Your task to perform on an android device: Open CNN.com Image 0: 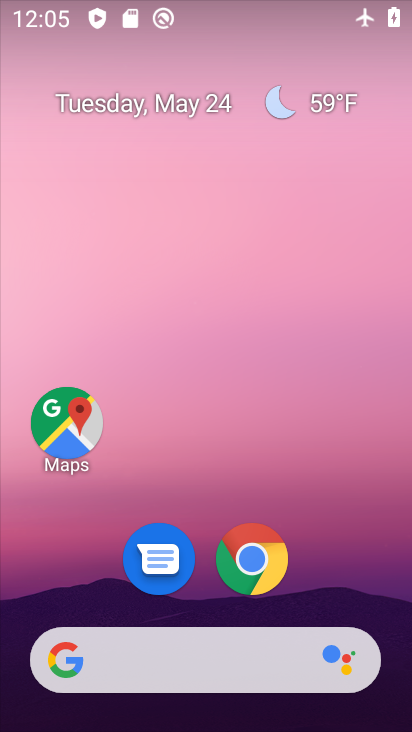
Step 0: drag from (384, 662) to (297, 14)
Your task to perform on an android device: Open CNN.com Image 1: 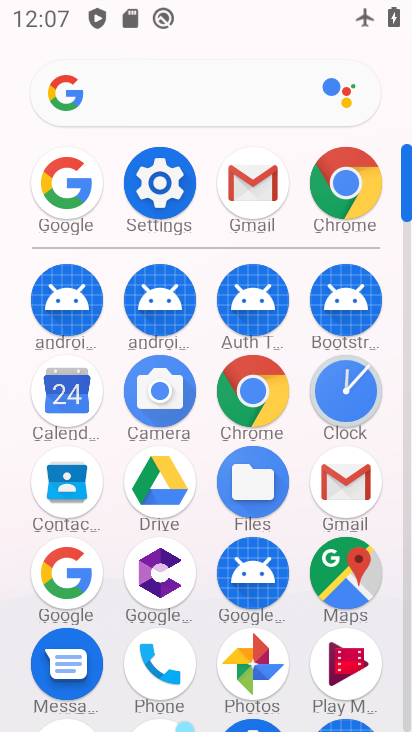
Step 1: click (76, 561)
Your task to perform on an android device: Open CNN.com Image 2: 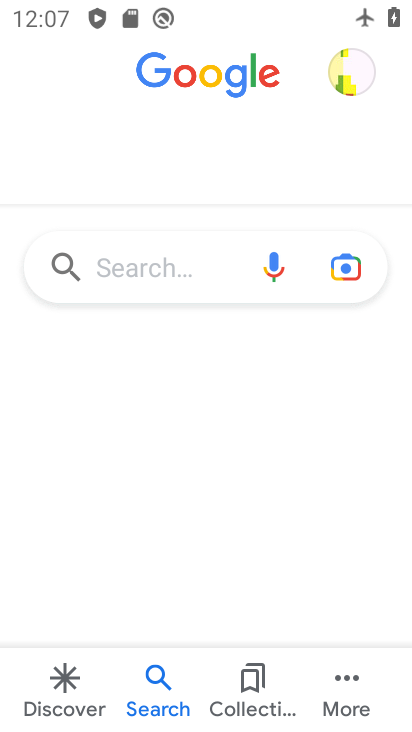
Step 2: click (147, 280)
Your task to perform on an android device: Open CNN.com Image 3: 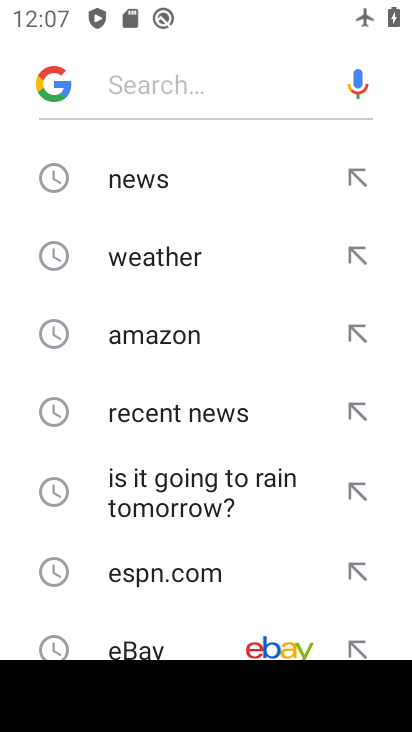
Step 3: drag from (154, 592) to (207, 170)
Your task to perform on an android device: Open CNN.com Image 4: 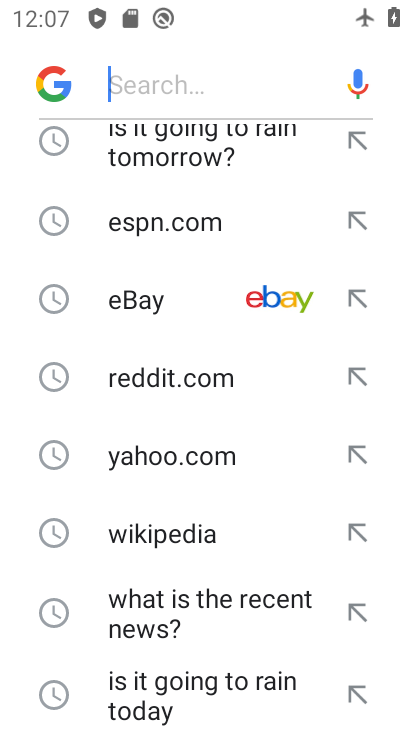
Step 4: drag from (117, 570) to (232, 132)
Your task to perform on an android device: Open CNN.com Image 5: 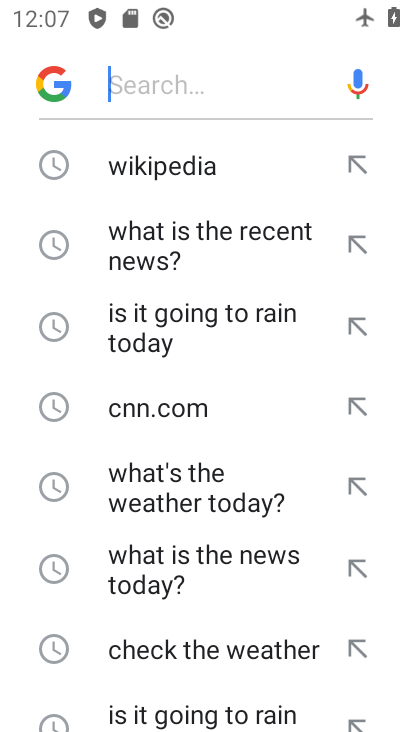
Step 5: drag from (140, 628) to (225, 152)
Your task to perform on an android device: Open CNN.com Image 6: 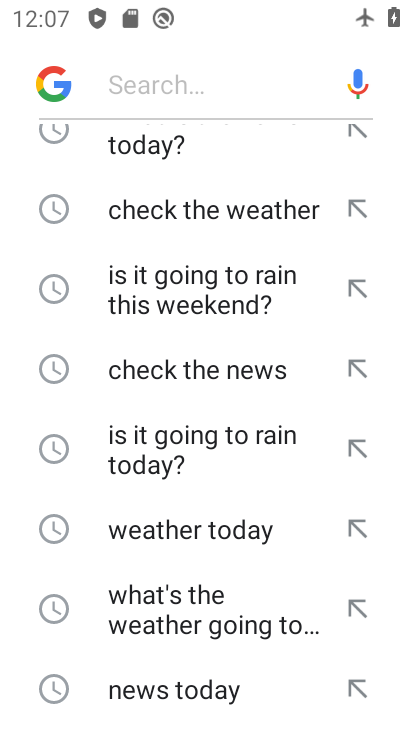
Step 6: drag from (223, 163) to (227, 588)
Your task to perform on an android device: Open CNN.com Image 7: 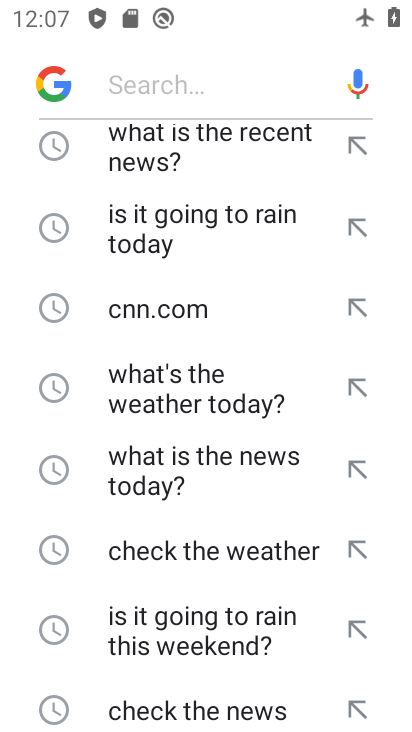
Step 7: click (175, 310)
Your task to perform on an android device: Open CNN.com Image 8: 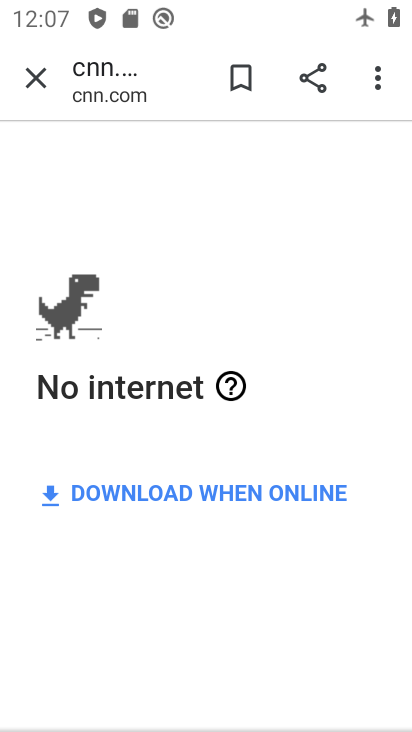
Step 8: task complete